Your task to perform on an android device: change notification settings in the gmail app Image 0: 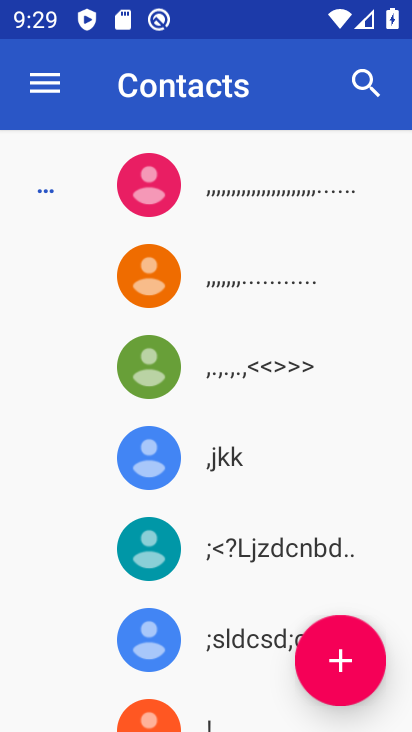
Step 0: press home button
Your task to perform on an android device: change notification settings in the gmail app Image 1: 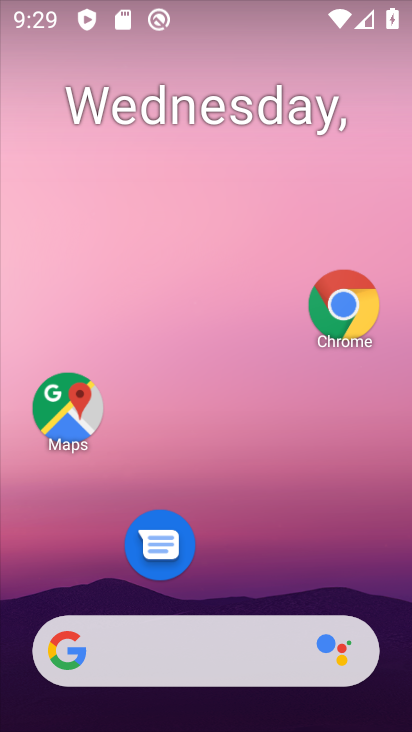
Step 1: drag from (311, 548) to (343, 475)
Your task to perform on an android device: change notification settings in the gmail app Image 2: 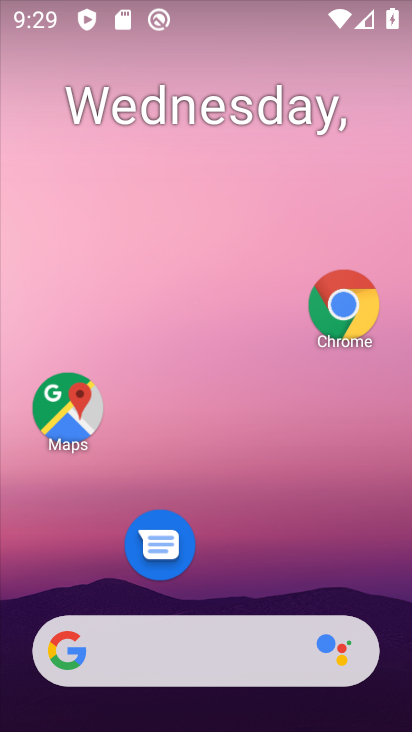
Step 2: drag from (247, 639) to (346, 278)
Your task to perform on an android device: change notification settings in the gmail app Image 3: 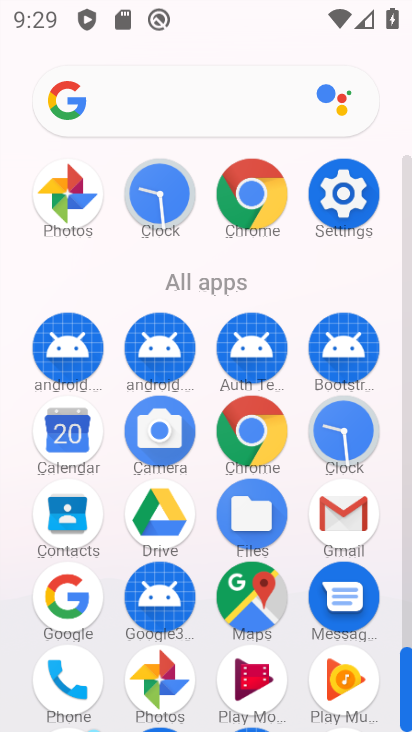
Step 3: click (357, 522)
Your task to perform on an android device: change notification settings in the gmail app Image 4: 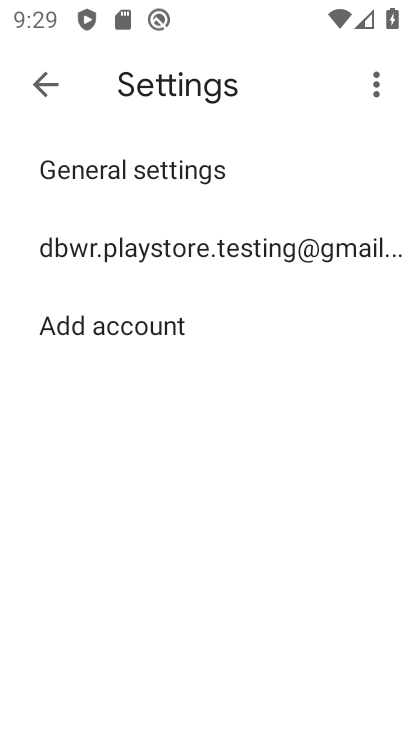
Step 4: click (225, 168)
Your task to perform on an android device: change notification settings in the gmail app Image 5: 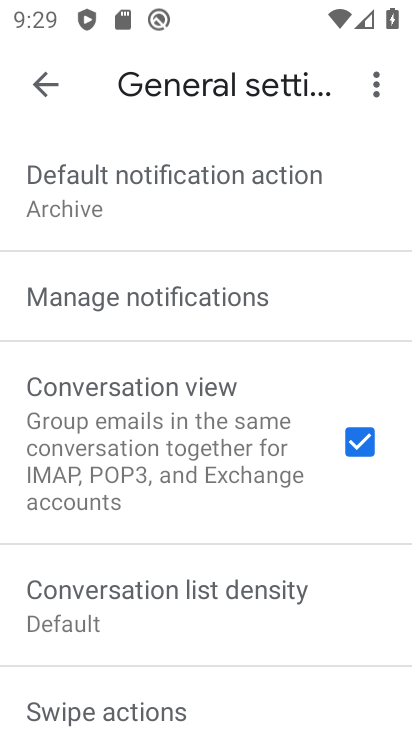
Step 5: click (222, 292)
Your task to perform on an android device: change notification settings in the gmail app Image 6: 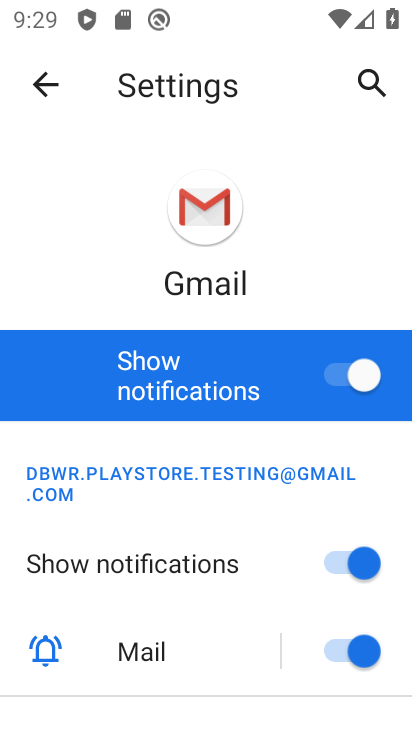
Step 6: click (346, 385)
Your task to perform on an android device: change notification settings in the gmail app Image 7: 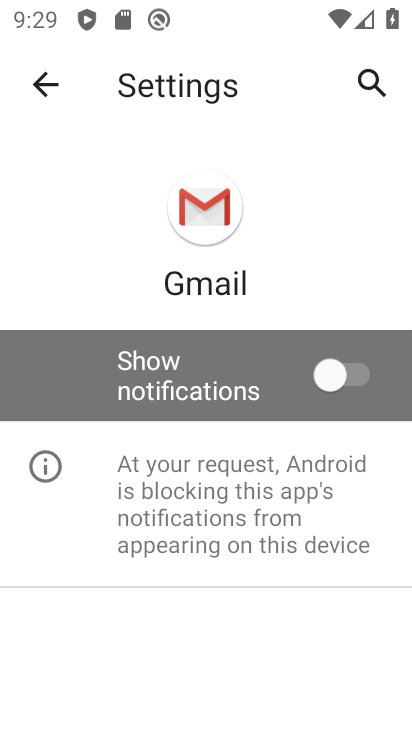
Step 7: task complete